Your task to perform on an android device: change text size in settings app Image 0: 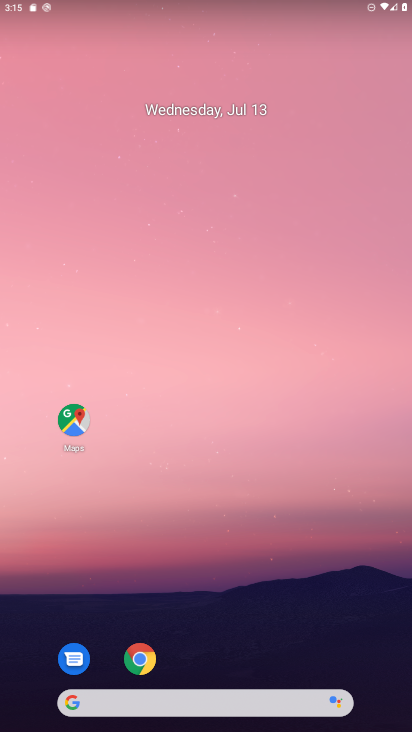
Step 0: drag from (386, 675) to (322, 136)
Your task to perform on an android device: change text size in settings app Image 1: 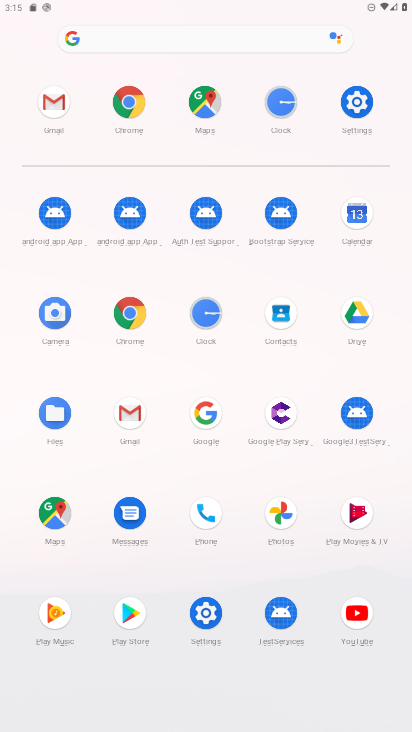
Step 1: click (204, 612)
Your task to perform on an android device: change text size in settings app Image 2: 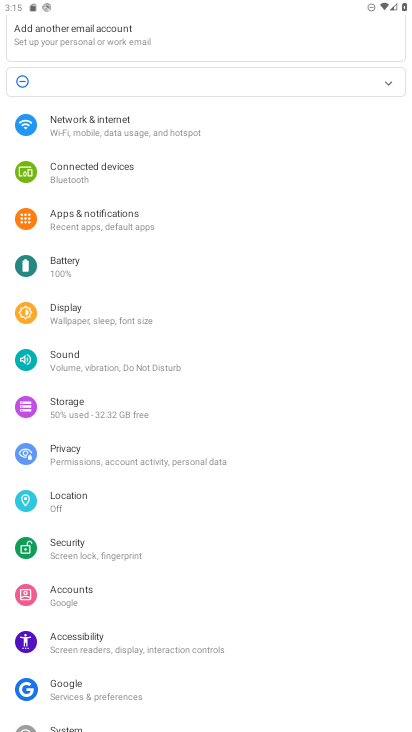
Step 2: click (77, 320)
Your task to perform on an android device: change text size in settings app Image 3: 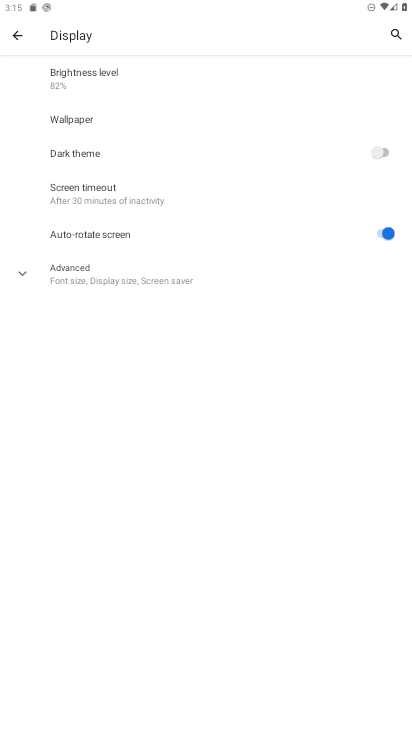
Step 3: click (56, 270)
Your task to perform on an android device: change text size in settings app Image 4: 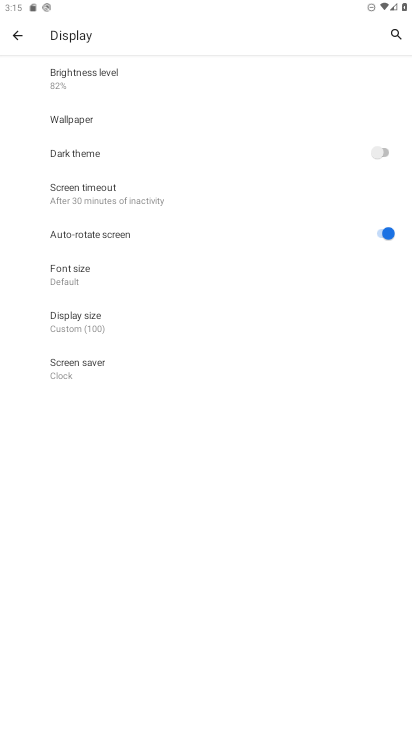
Step 4: click (71, 272)
Your task to perform on an android device: change text size in settings app Image 5: 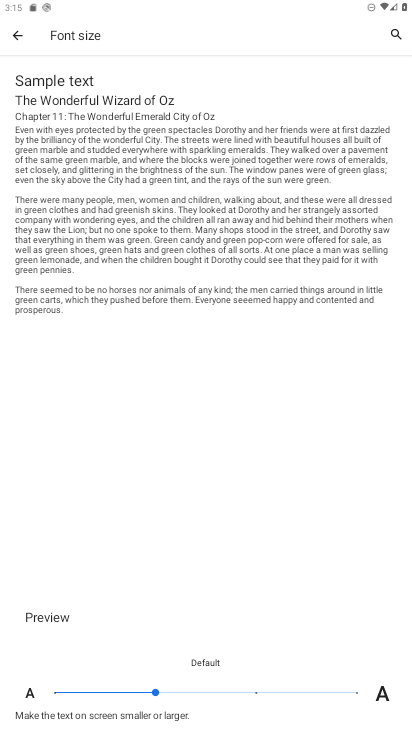
Step 5: click (255, 693)
Your task to perform on an android device: change text size in settings app Image 6: 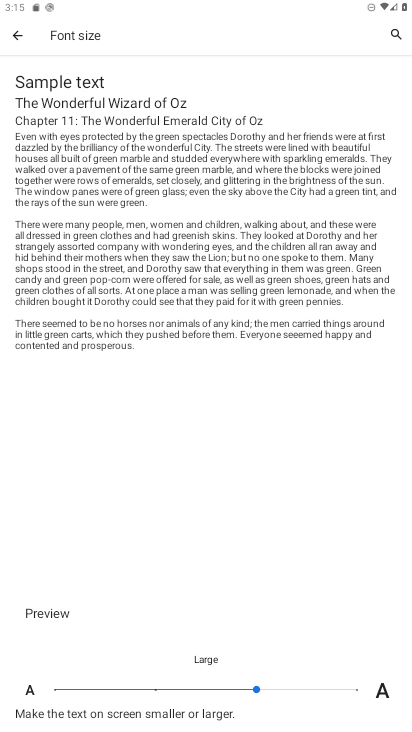
Step 6: task complete